Your task to perform on an android device: allow cookies in the chrome app Image 0: 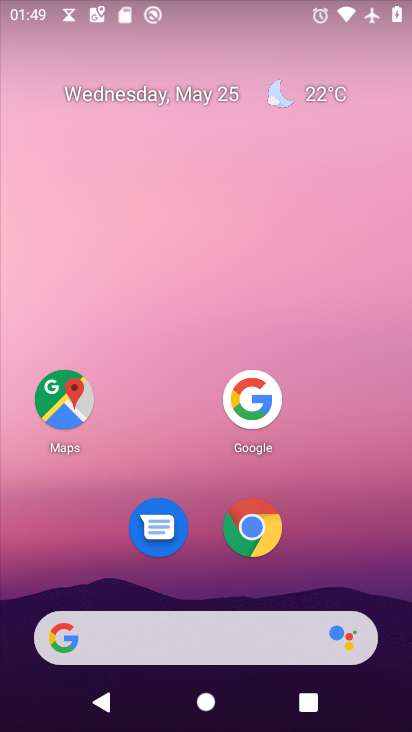
Step 0: press home button
Your task to perform on an android device: allow cookies in the chrome app Image 1: 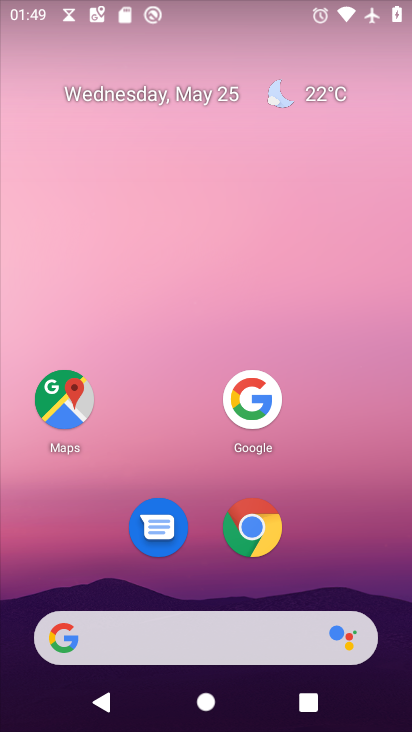
Step 1: click (249, 528)
Your task to perform on an android device: allow cookies in the chrome app Image 2: 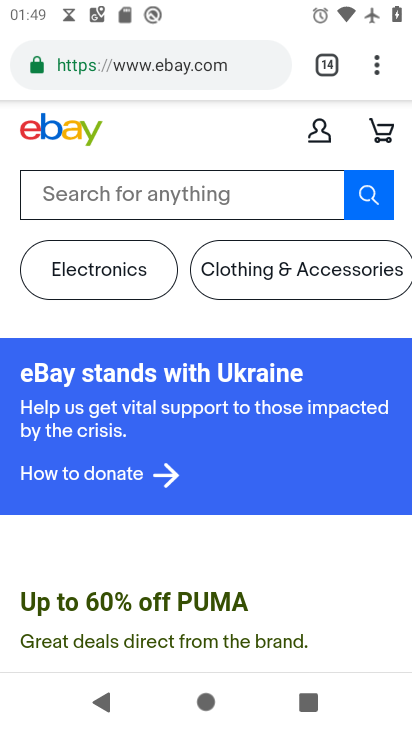
Step 2: drag from (371, 69) to (212, 578)
Your task to perform on an android device: allow cookies in the chrome app Image 3: 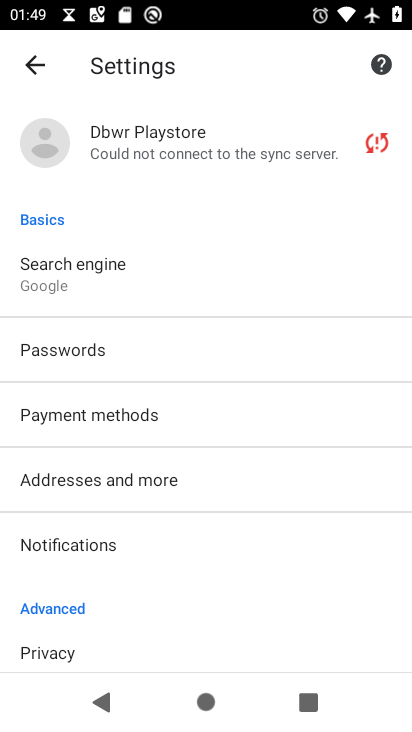
Step 3: drag from (185, 612) to (372, 192)
Your task to perform on an android device: allow cookies in the chrome app Image 4: 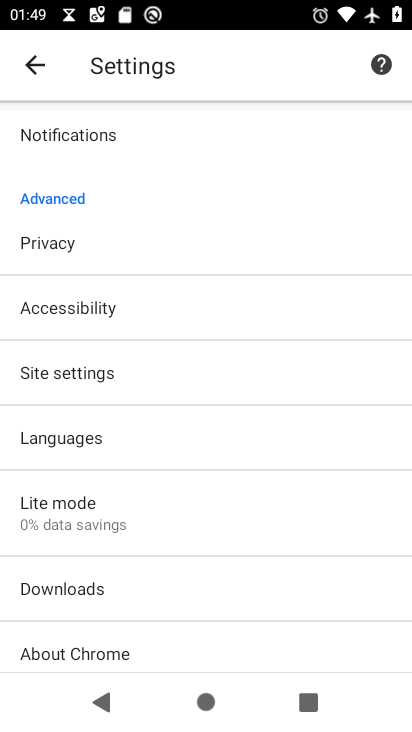
Step 4: click (101, 376)
Your task to perform on an android device: allow cookies in the chrome app Image 5: 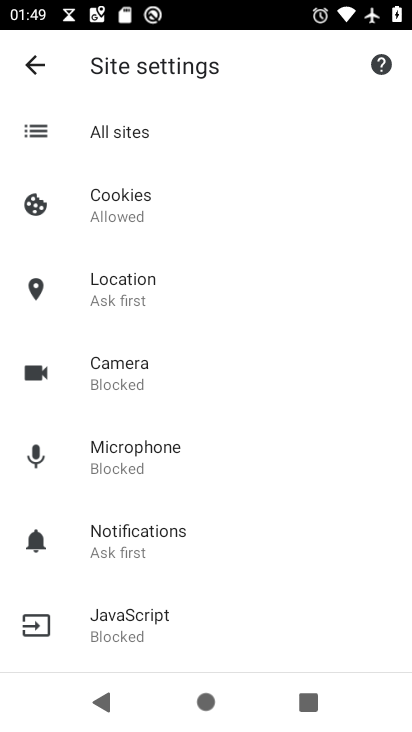
Step 5: click (114, 194)
Your task to perform on an android device: allow cookies in the chrome app Image 6: 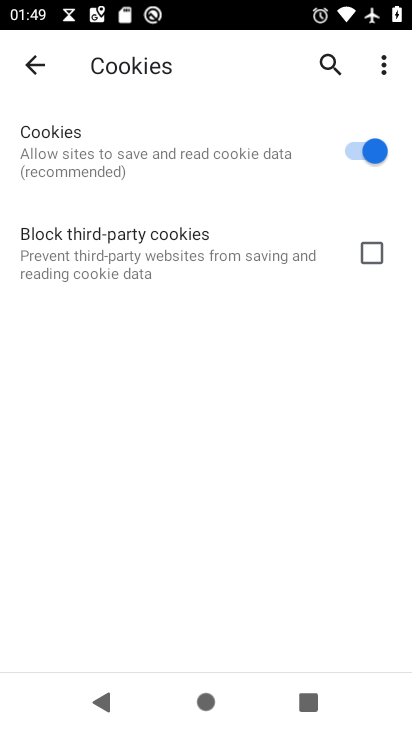
Step 6: task complete